Your task to perform on an android device: delete the emails in spam in the gmail app Image 0: 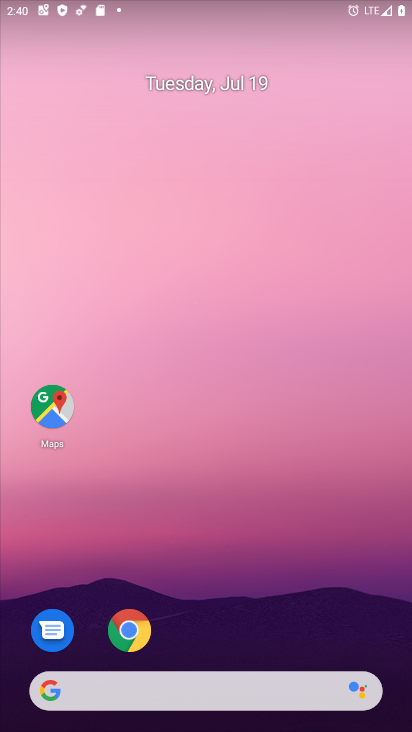
Step 0: press home button
Your task to perform on an android device: delete the emails in spam in the gmail app Image 1: 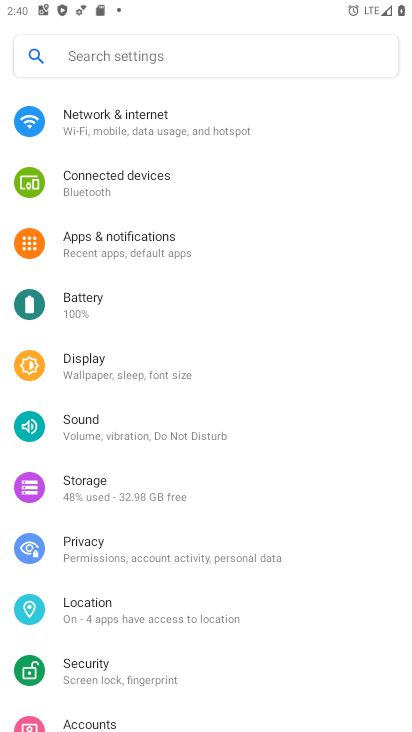
Step 1: drag from (205, 646) to (236, 107)
Your task to perform on an android device: delete the emails in spam in the gmail app Image 2: 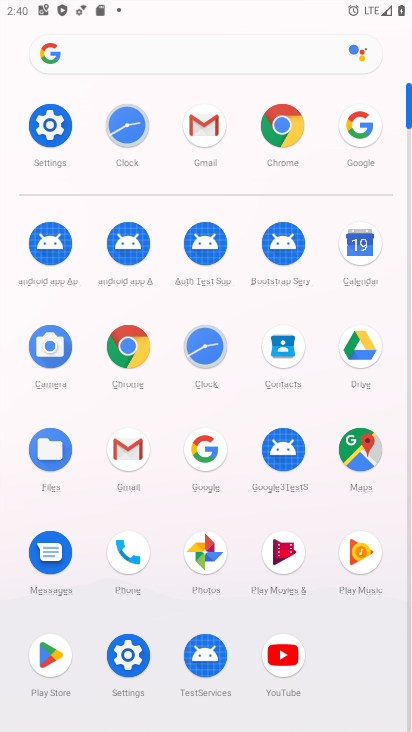
Step 2: click (198, 121)
Your task to perform on an android device: delete the emails in spam in the gmail app Image 3: 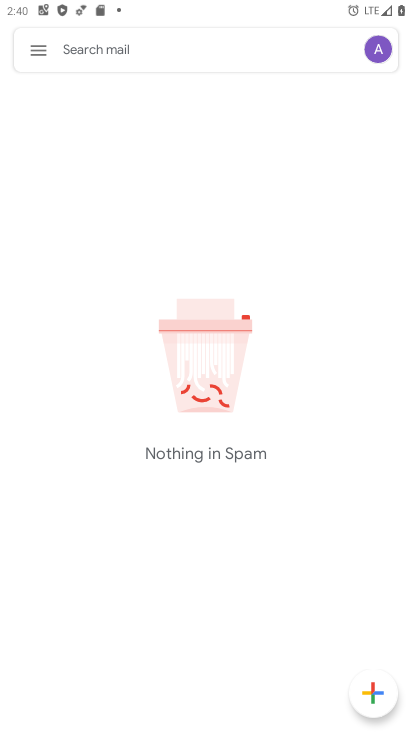
Step 3: click (37, 53)
Your task to perform on an android device: delete the emails in spam in the gmail app Image 4: 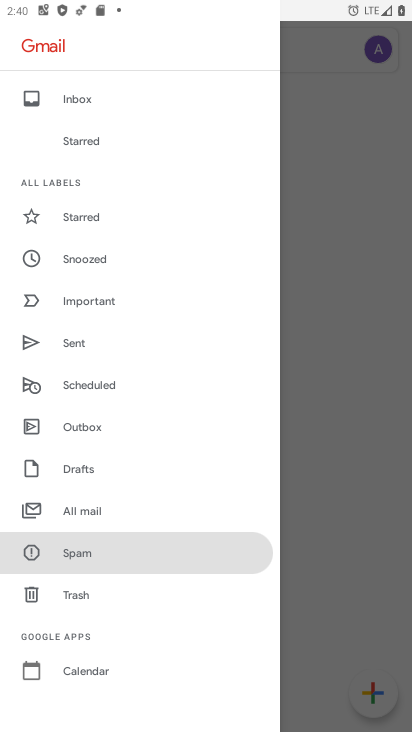
Step 4: click (75, 550)
Your task to perform on an android device: delete the emails in spam in the gmail app Image 5: 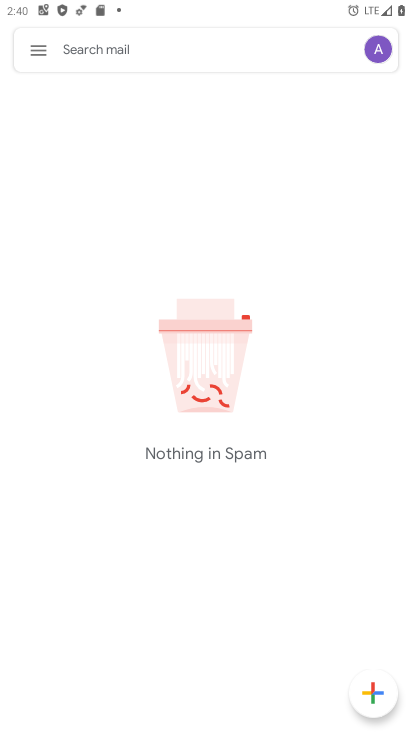
Step 5: task complete